Your task to perform on an android device: read, delete, or share a saved page in the chrome app Image 0: 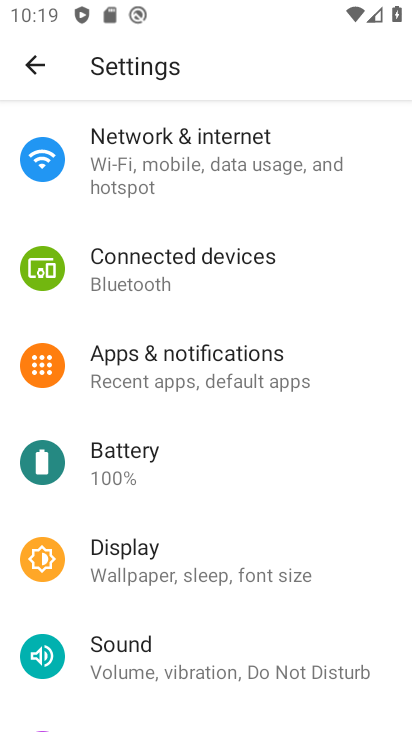
Step 0: press back button
Your task to perform on an android device: read, delete, or share a saved page in the chrome app Image 1: 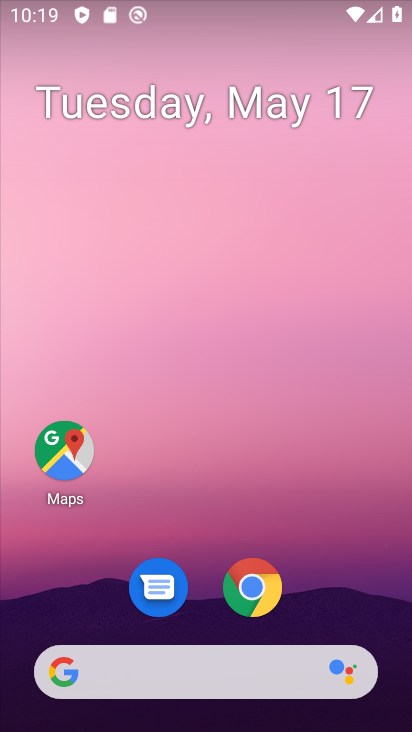
Step 1: click (256, 586)
Your task to perform on an android device: read, delete, or share a saved page in the chrome app Image 2: 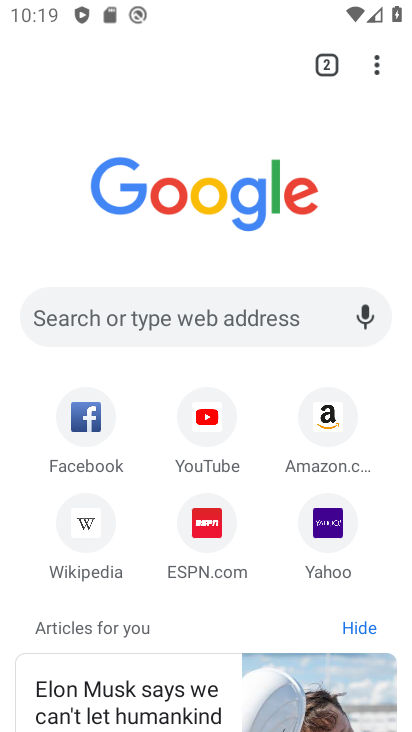
Step 2: click (377, 61)
Your task to perform on an android device: read, delete, or share a saved page in the chrome app Image 3: 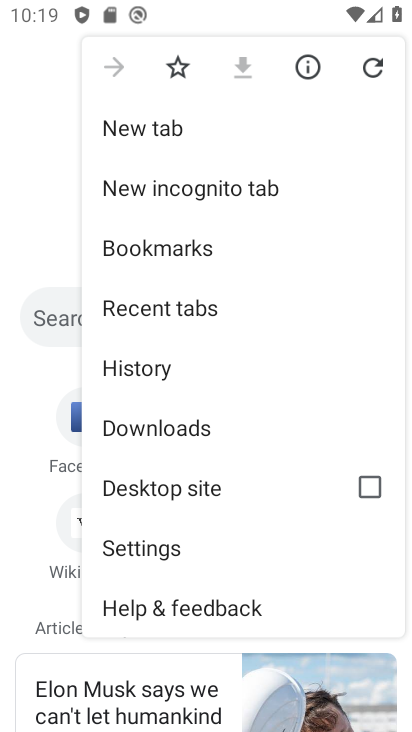
Step 3: click (162, 422)
Your task to perform on an android device: read, delete, or share a saved page in the chrome app Image 4: 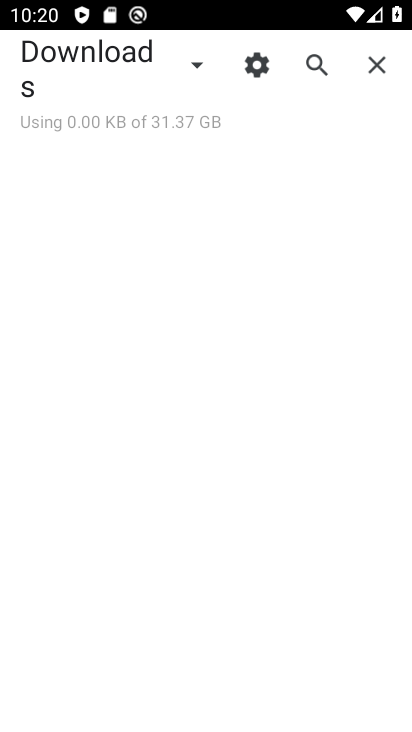
Step 4: task complete